Your task to perform on an android device: create a new album in the google photos Image 0: 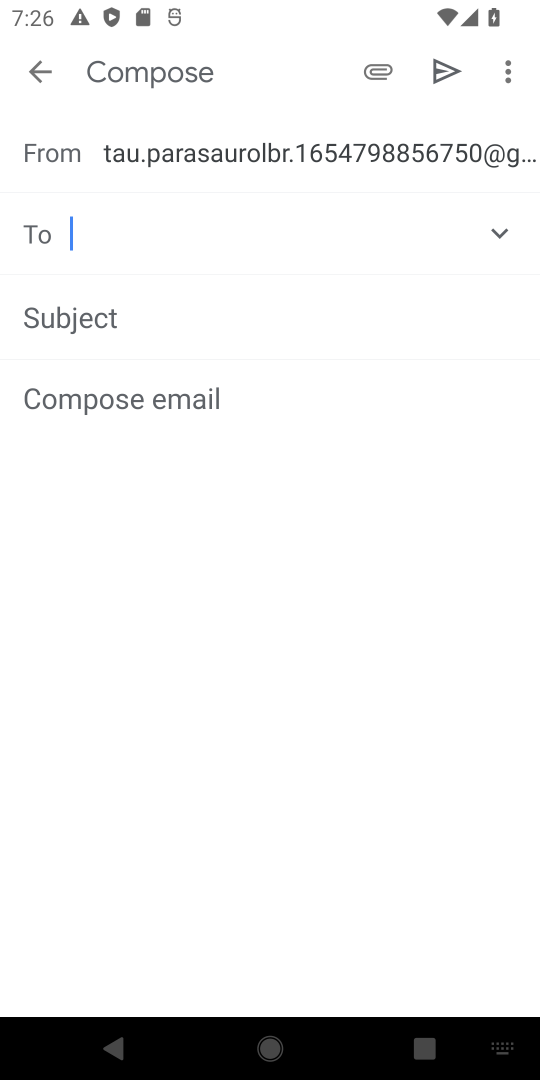
Step 0: press home button
Your task to perform on an android device: create a new album in the google photos Image 1: 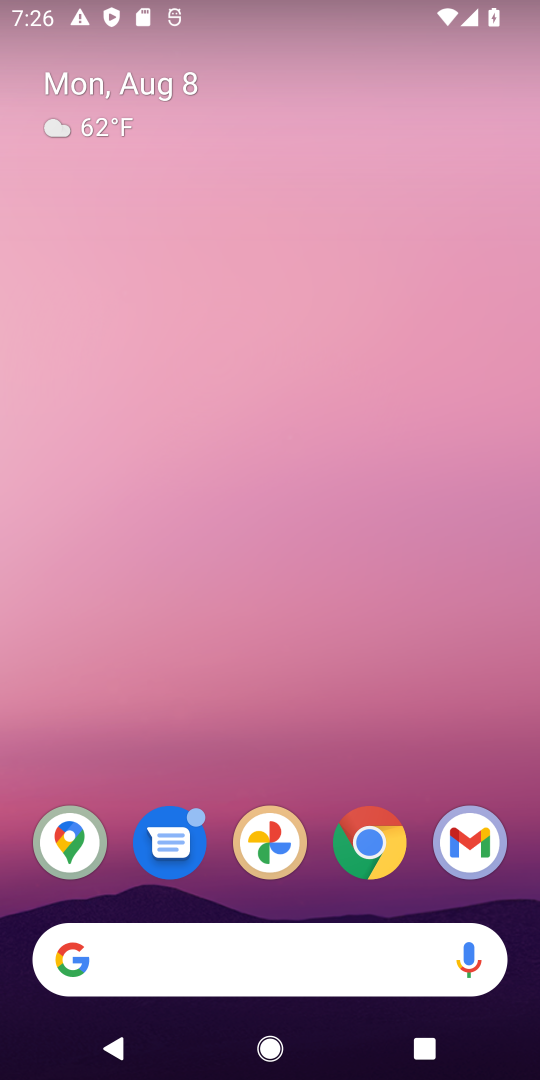
Step 1: click (277, 846)
Your task to perform on an android device: create a new album in the google photos Image 2: 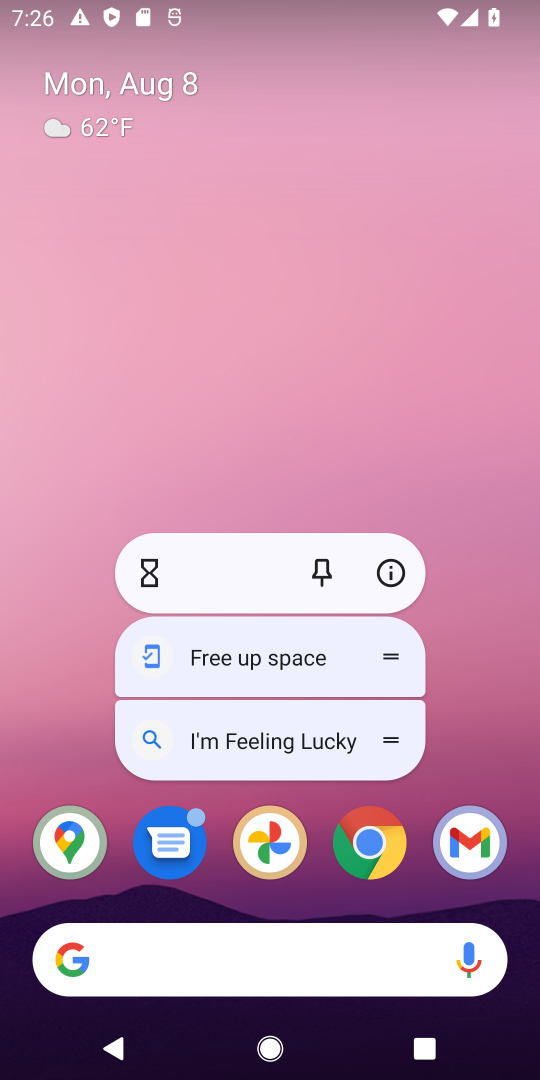
Step 2: click (277, 846)
Your task to perform on an android device: create a new album in the google photos Image 3: 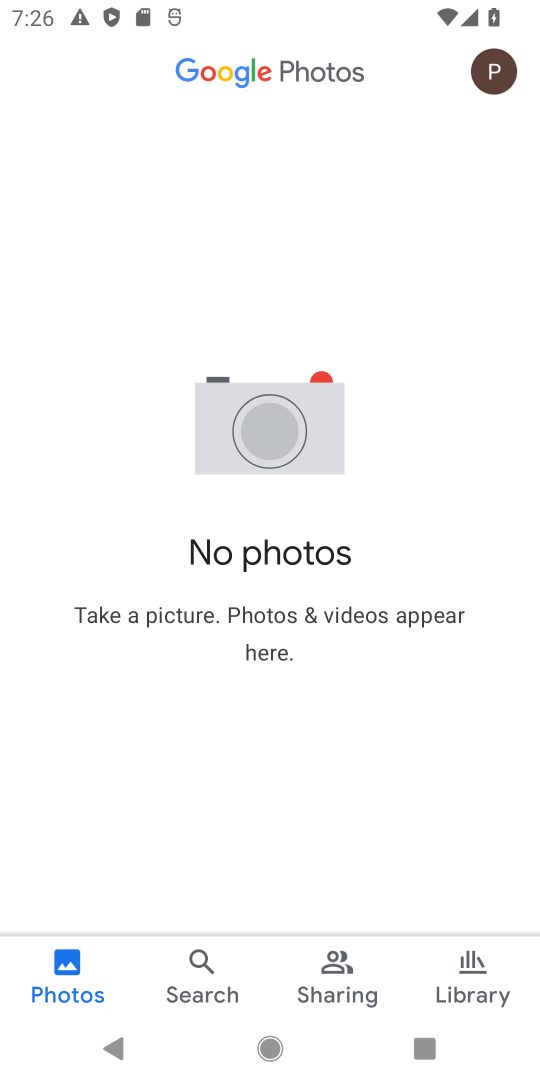
Step 3: click (492, 73)
Your task to perform on an android device: create a new album in the google photos Image 4: 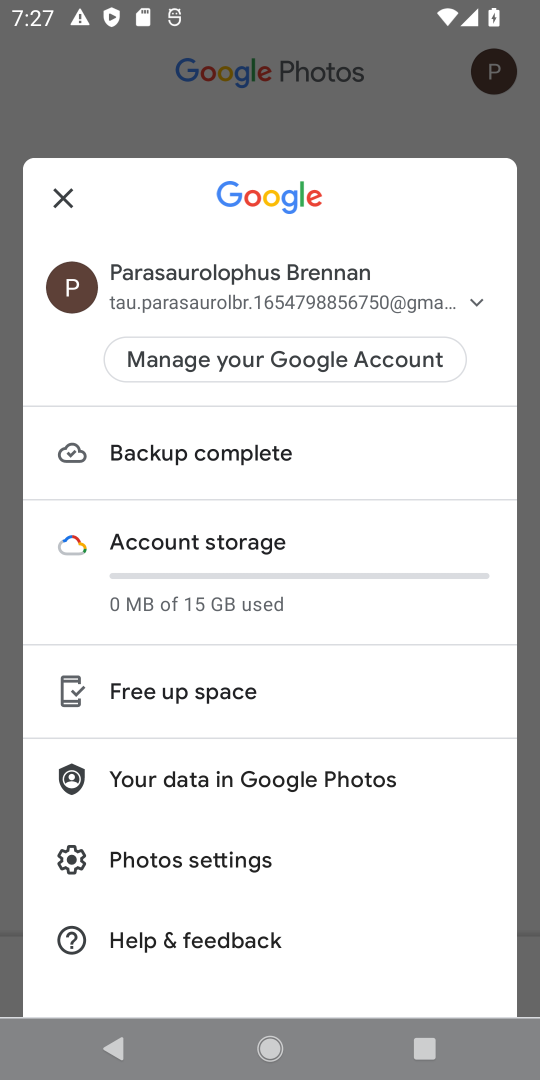
Step 4: task complete